Your task to perform on an android device: empty trash in the gmail app Image 0: 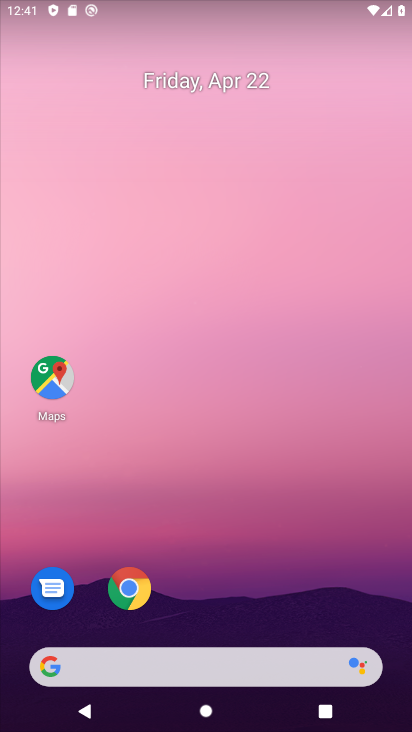
Step 0: drag from (228, 697) to (360, 99)
Your task to perform on an android device: empty trash in the gmail app Image 1: 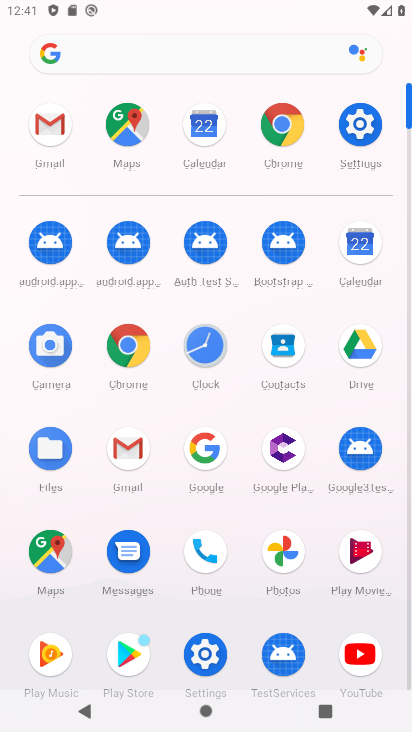
Step 1: click (50, 120)
Your task to perform on an android device: empty trash in the gmail app Image 2: 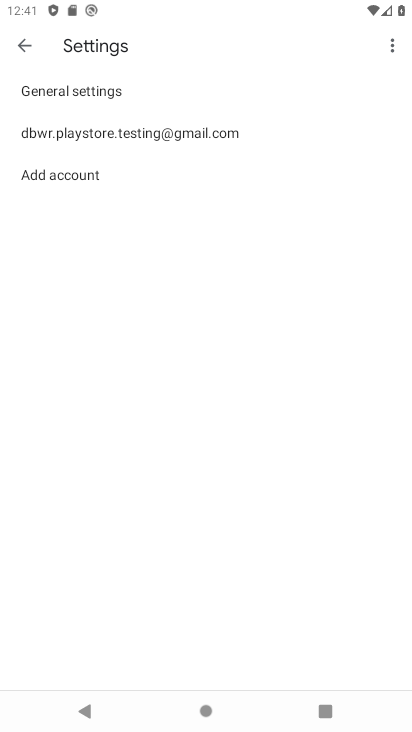
Step 2: click (23, 50)
Your task to perform on an android device: empty trash in the gmail app Image 3: 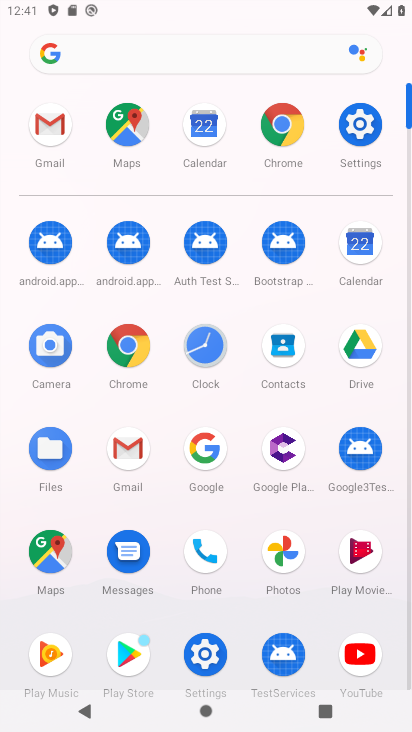
Step 3: click (48, 122)
Your task to perform on an android device: empty trash in the gmail app Image 4: 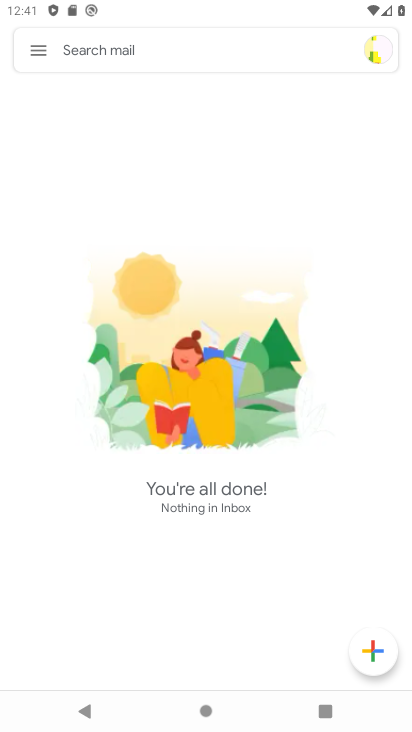
Step 4: click (41, 45)
Your task to perform on an android device: empty trash in the gmail app Image 5: 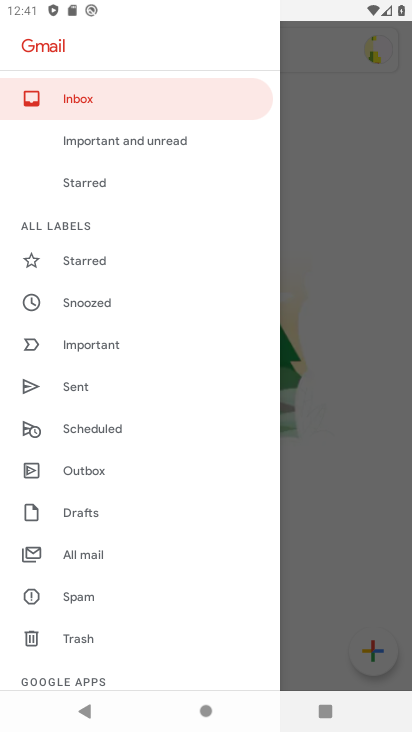
Step 5: click (96, 632)
Your task to perform on an android device: empty trash in the gmail app Image 6: 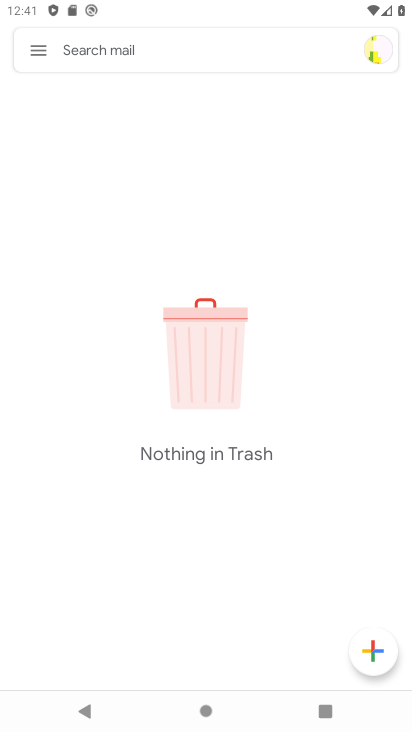
Step 6: task complete